Your task to perform on an android device: Go to wifi settings Image 0: 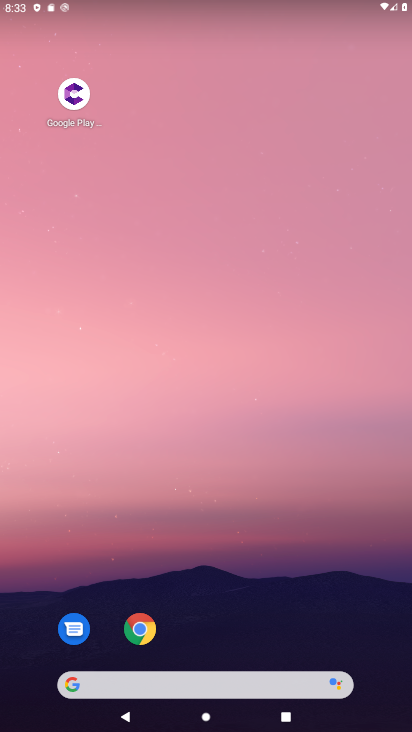
Step 0: drag from (295, 579) to (381, 17)
Your task to perform on an android device: Go to wifi settings Image 1: 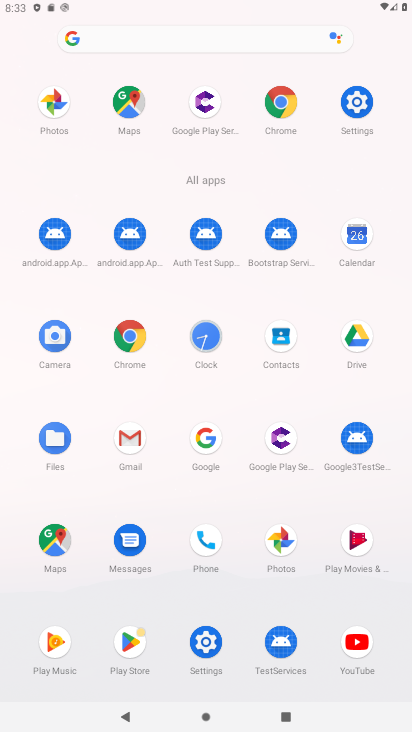
Step 1: click (343, 90)
Your task to perform on an android device: Go to wifi settings Image 2: 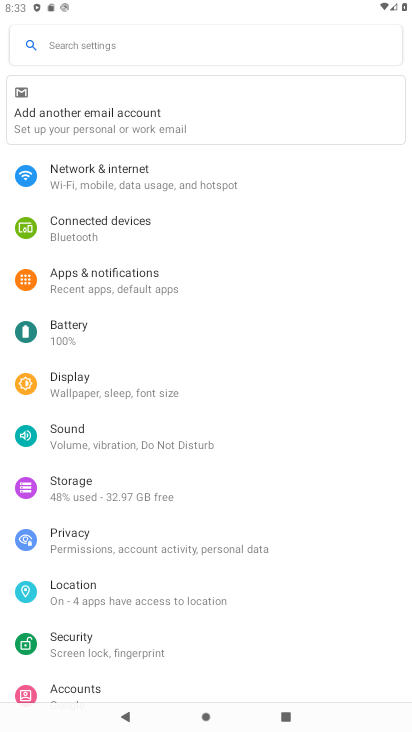
Step 2: click (139, 183)
Your task to perform on an android device: Go to wifi settings Image 3: 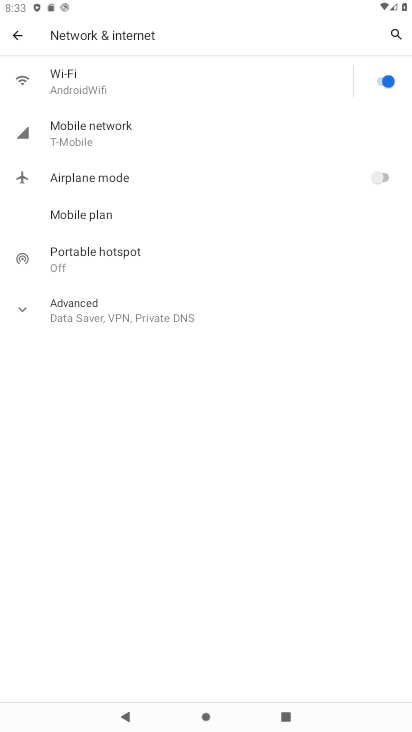
Step 3: click (63, 76)
Your task to perform on an android device: Go to wifi settings Image 4: 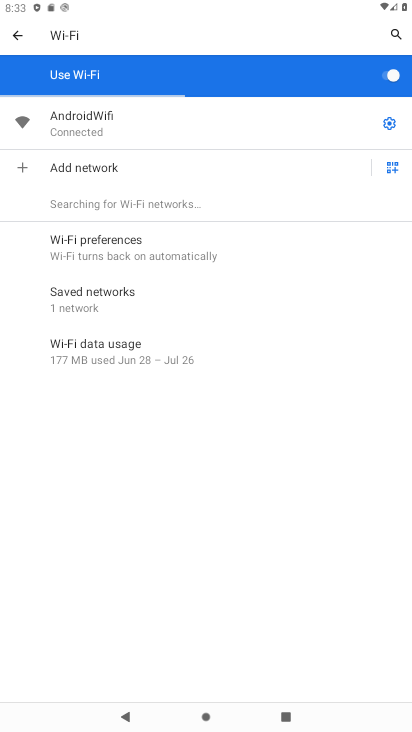
Step 4: task complete